Your task to perform on an android device: Go to Yahoo.com Image 0: 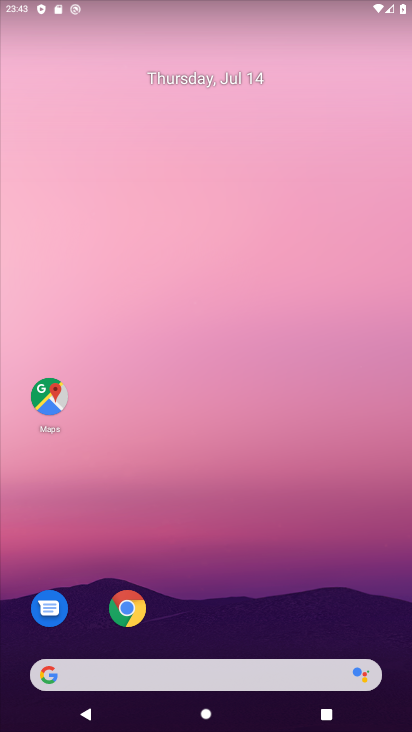
Step 0: click (125, 676)
Your task to perform on an android device: Go to Yahoo.com Image 1: 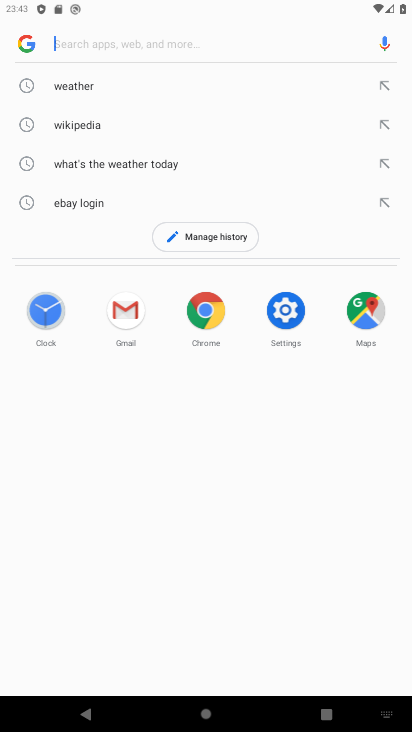
Step 1: type "Yahoo.com"
Your task to perform on an android device: Go to Yahoo.com Image 2: 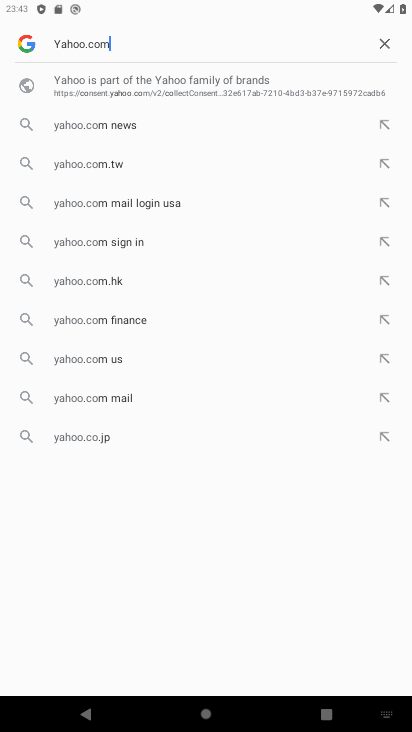
Step 2: type ""
Your task to perform on an android device: Go to Yahoo.com Image 3: 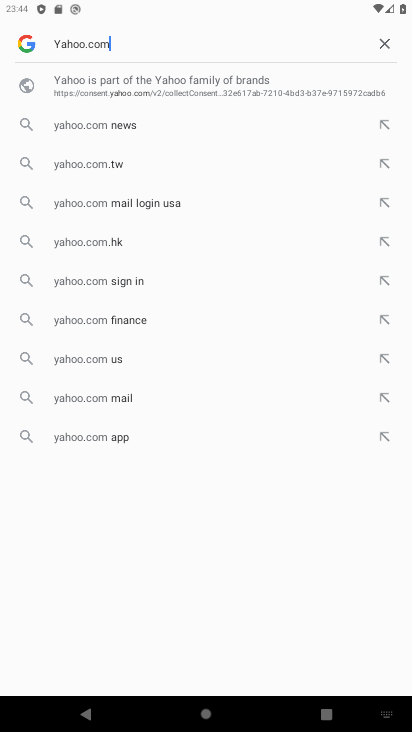
Step 3: click (168, 83)
Your task to perform on an android device: Go to Yahoo.com Image 4: 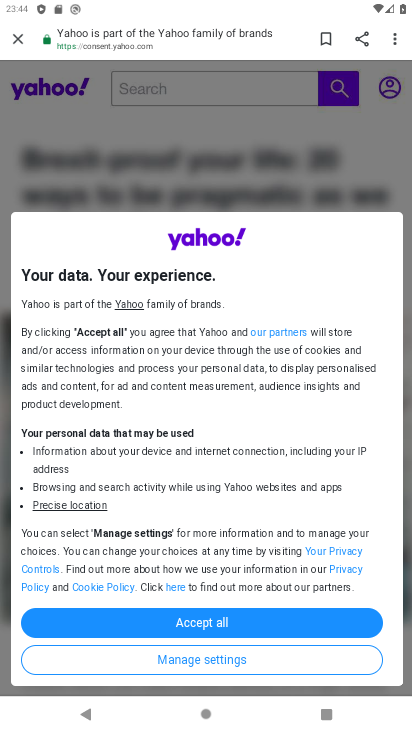
Step 4: task complete